Your task to perform on an android device: turn on data saver in the chrome app Image 0: 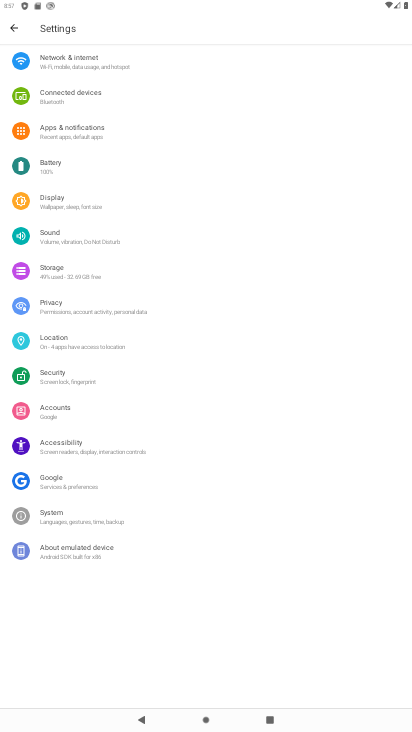
Step 0: click (9, 31)
Your task to perform on an android device: turn on data saver in the chrome app Image 1: 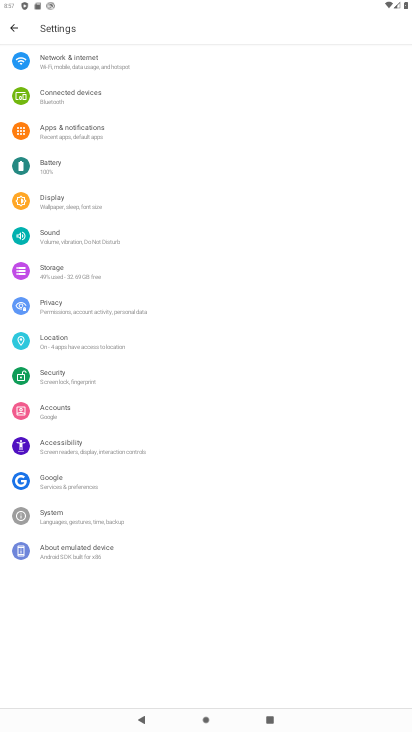
Step 1: click (9, 31)
Your task to perform on an android device: turn on data saver in the chrome app Image 2: 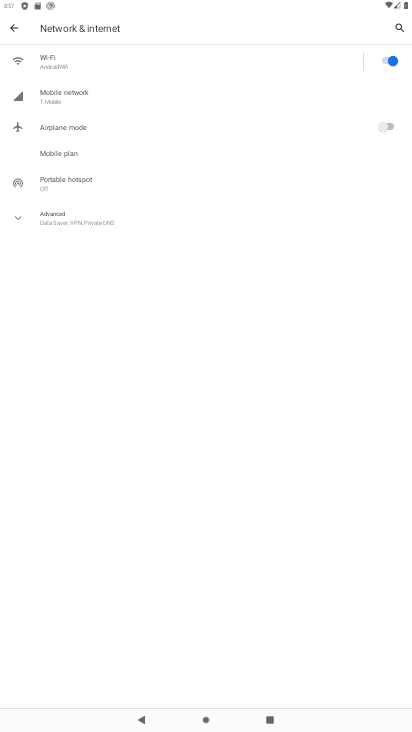
Step 2: press home button
Your task to perform on an android device: turn on data saver in the chrome app Image 3: 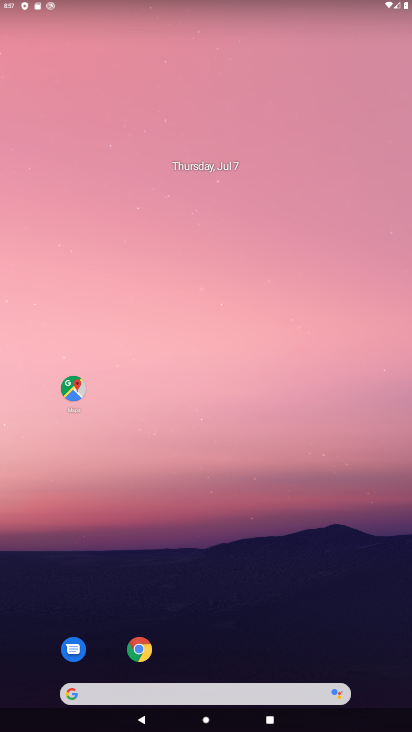
Step 3: click (149, 647)
Your task to perform on an android device: turn on data saver in the chrome app Image 4: 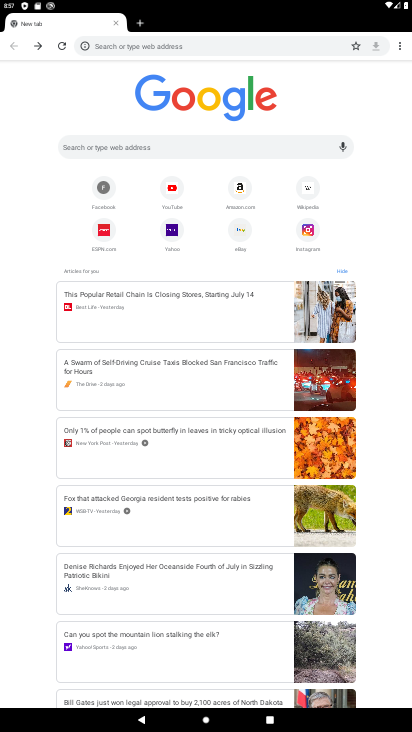
Step 4: click (398, 45)
Your task to perform on an android device: turn on data saver in the chrome app Image 5: 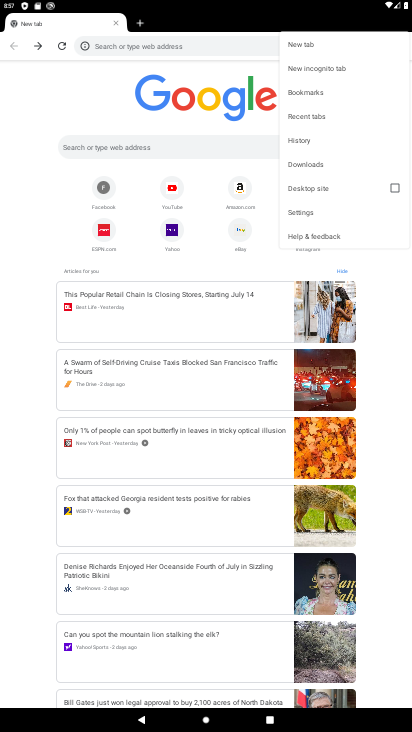
Step 5: click (316, 213)
Your task to perform on an android device: turn on data saver in the chrome app Image 6: 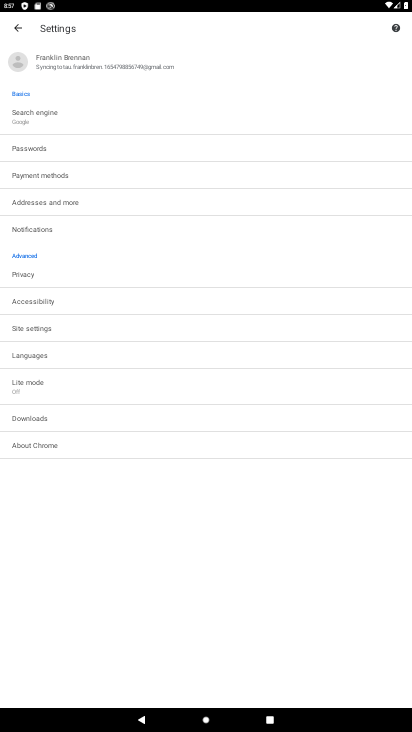
Step 6: click (42, 325)
Your task to perform on an android device: turn on data saver in the chrome app Image 7: 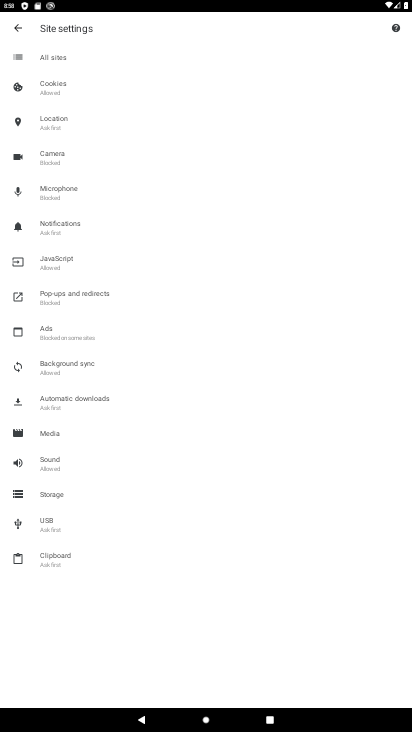
Step 7: click (13, 25)
Your task to perform on an android device: turn on data saver in the chrome app Image 8: 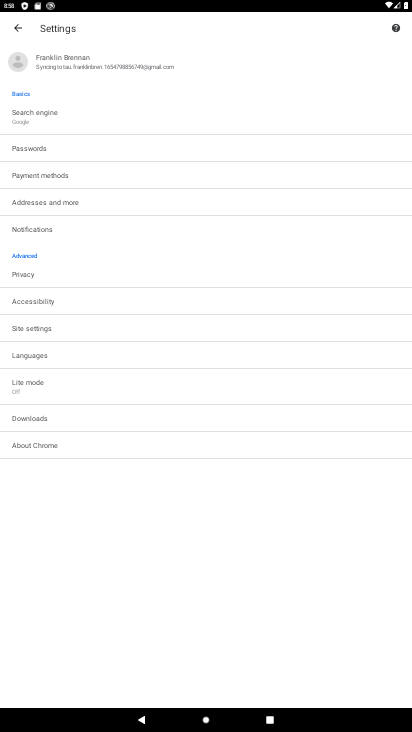
Step 8: click (58, 202)
Your task to perform on an android device: turn on data saver in the chrome app Image 9: 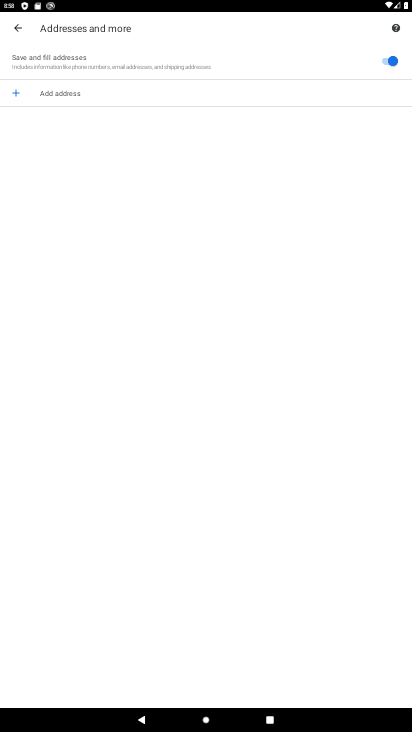
Step 9: click (19, 25)
Your task to perform on an android device: turn on data saver in the chrome app Image 10: 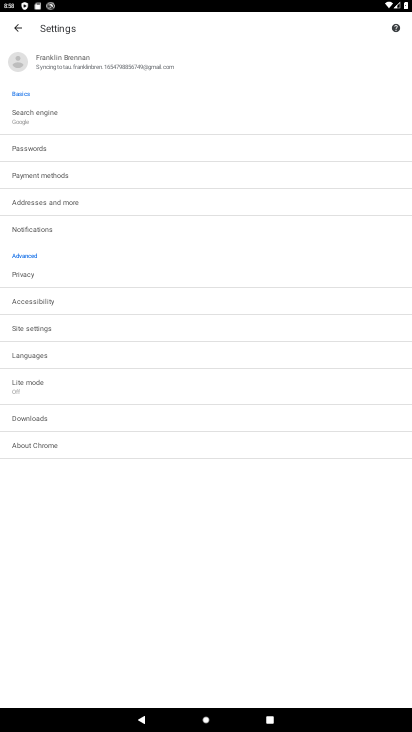
Step 10: task complete